Your task to perform on an android device: change the clock display to show seconds Image 0: 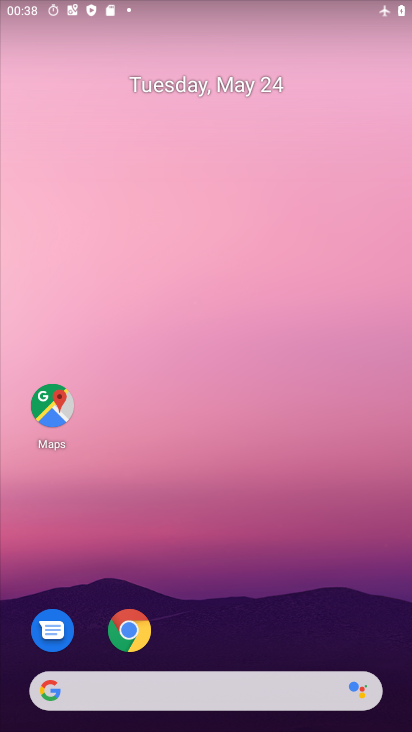
Step 0: drag from (250, 650) to (298, 40)
Your task to perform on an android device: change the clock display to show seconds Image 1: 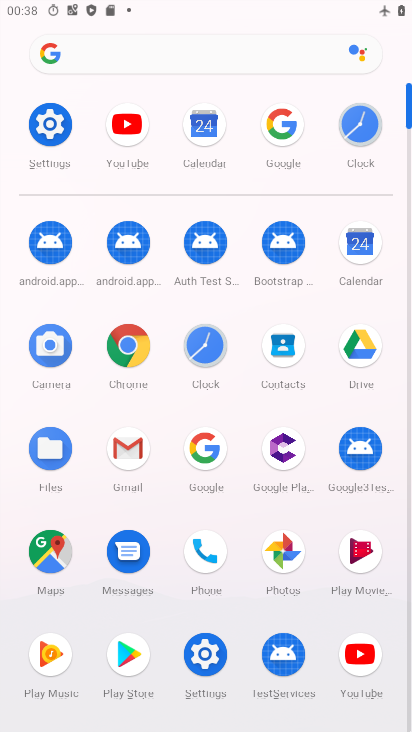
Step 1: click (361, 126)
Your task to perform on an android device: change the clock display to show seconds Image 2: 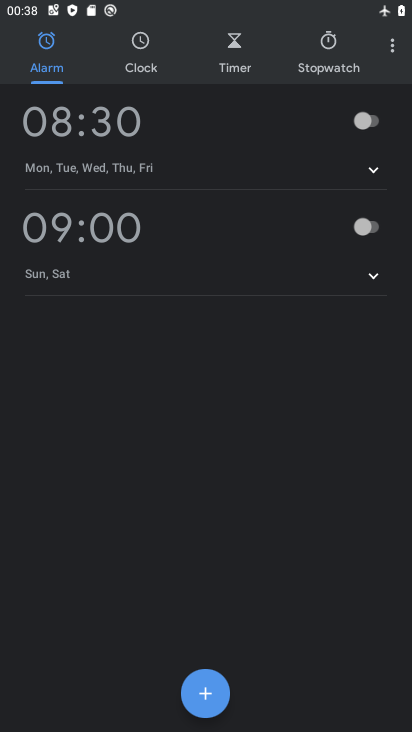
Step 2: click (398, 48)
Your task to perform on an android device: change the clock display to show seconds Image 3: 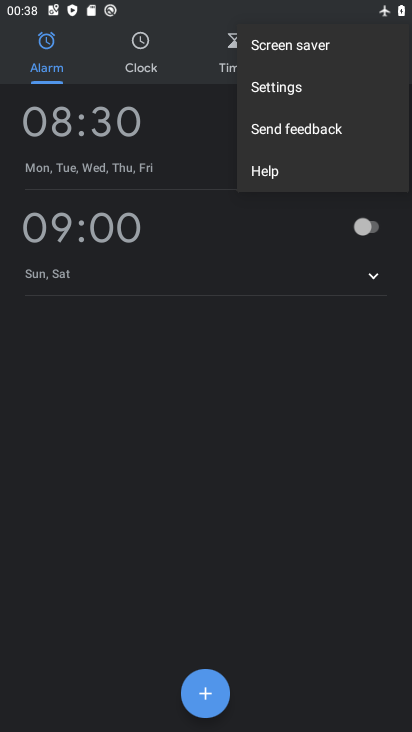
Step 3: click (266, 91)
Your task to perform on an android device: change the clock display to show seconds Image 4: 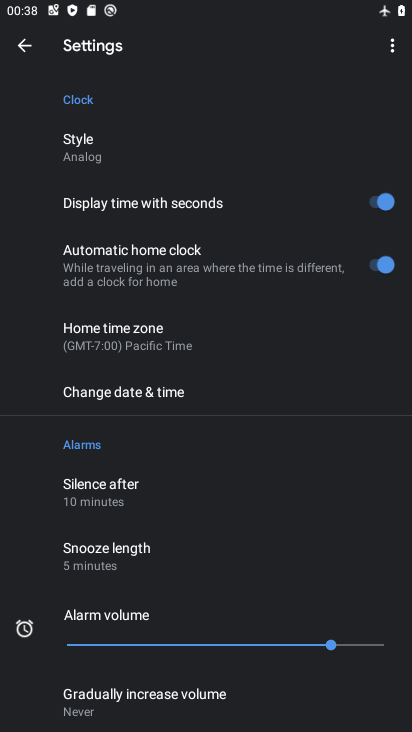
Step 4: task complete